Your task to perform on an android device: Open maps Image 0: 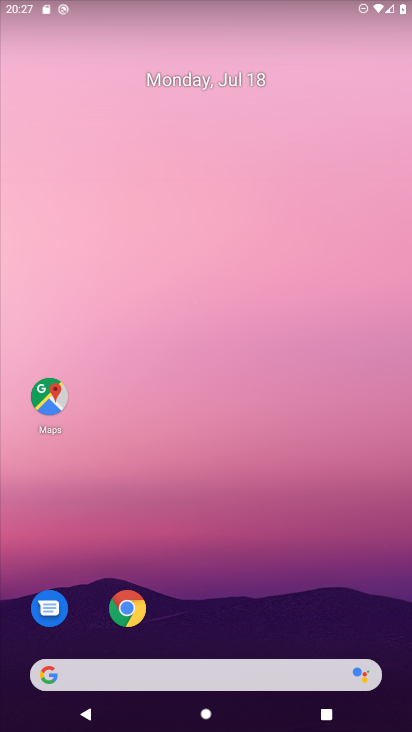
Step 0: click (53, 397)
Your task to perform on an android device: Open maps Image 1: 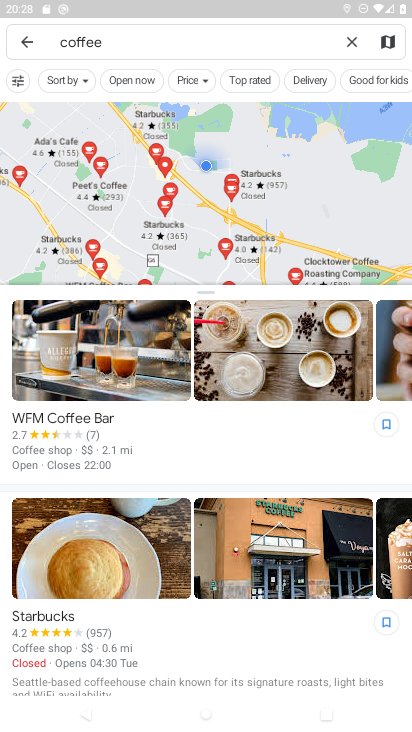
Step 1: task complete